Your task to perform on an android device: turn on airplane mode Image 0: 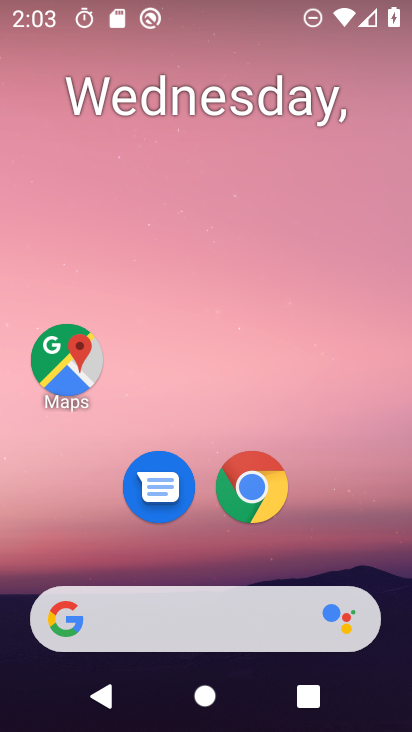
Step 0: drag from (369, 11) to (262, 659)
Your task to perform on an android device: turn on airplane mode Image 1: 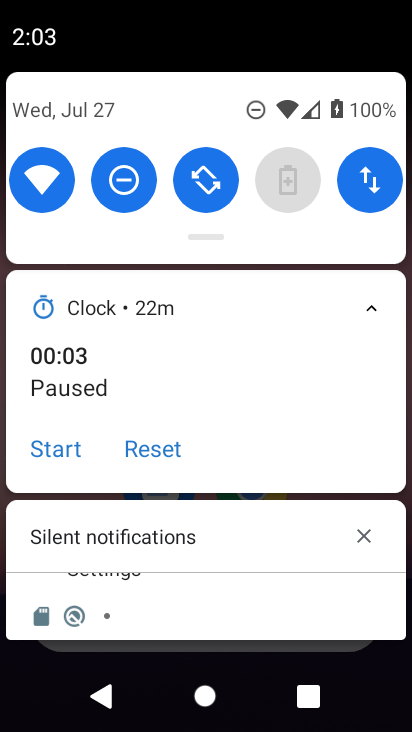
Step 1: drag from (205, 233) to (220, 729)
Your task to perform on an android device: turn on airplane mode Image 2: 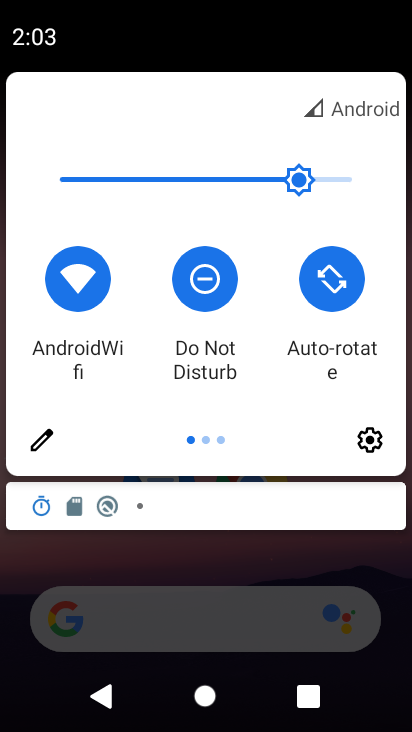
Step 2: drag from (356, 273) to (2, 258)
Your task to perform on an android device: turn on airplane mode Image 3: 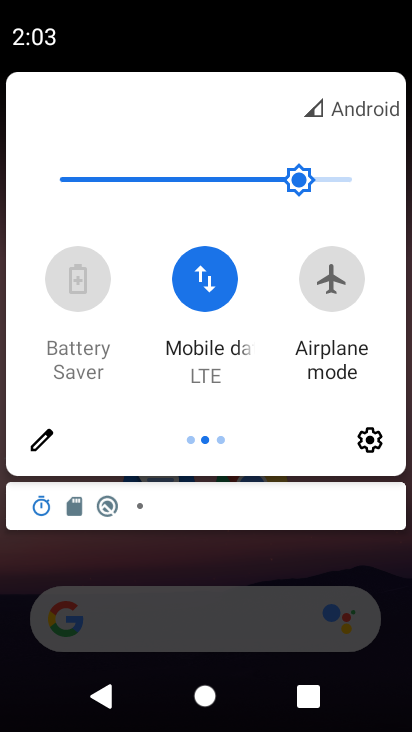
Step 3: click (334, 285)
Your task to perform on an android device: turn on airplane mode Image 4: 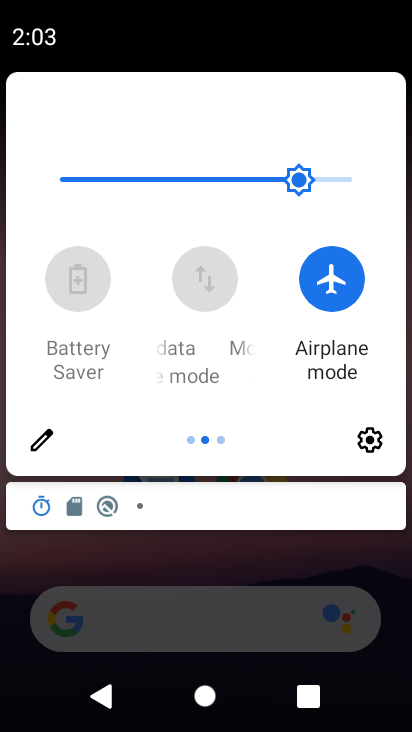
Step 4: task complete